Your task to perform on an android device: turn on the 12-hour format for clock Image 0: 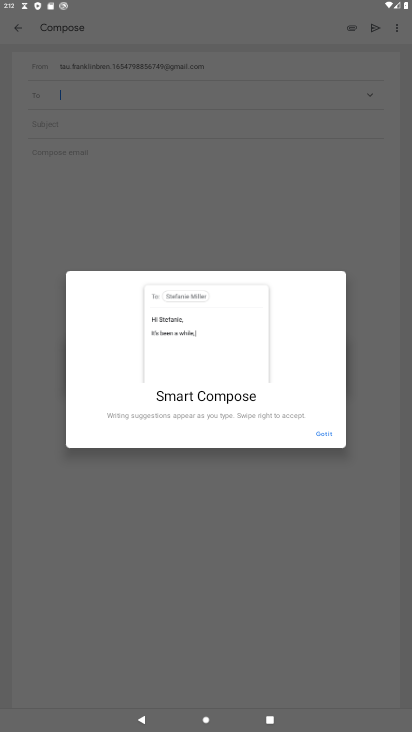
Step 0: press home button
Your task to perform on an android device: turn on the 12-hour format for clock Image 1: 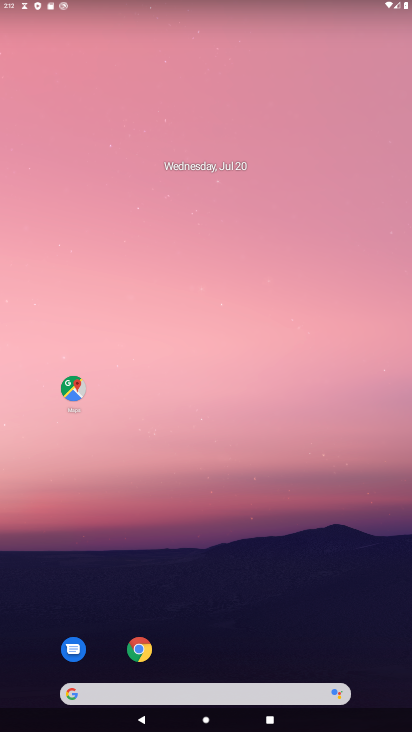
Step 1: drag from (227, 598) to (325, 63)
Your task to perform on an android device: turn on the 12-hour format for clock Image 2: 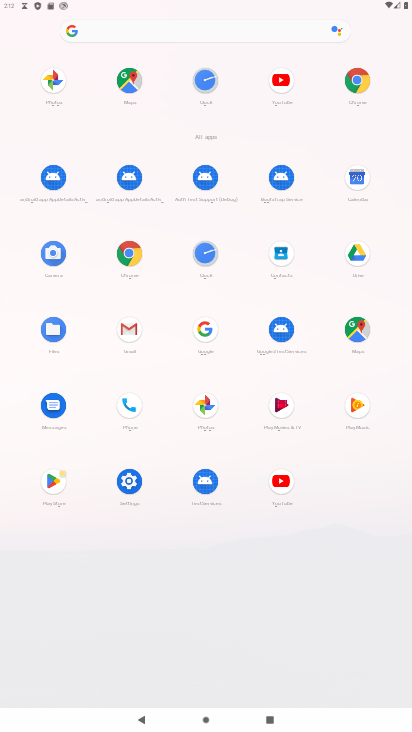
Step 2: click (138, 483)
Your task to perform on an android device: turn on the 12-hour format for clock Image 3: 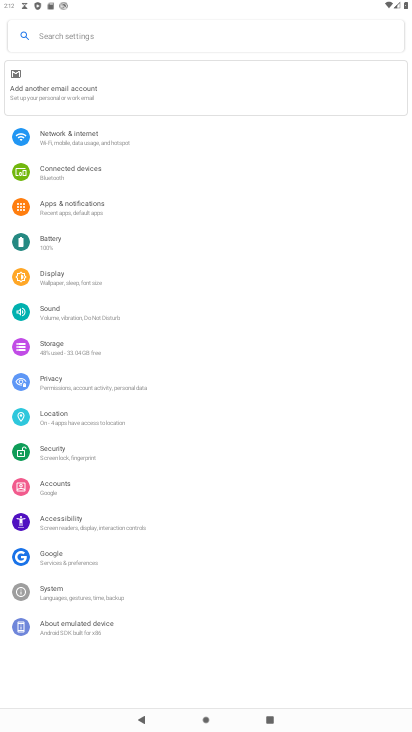
Step 3: click (76, 594)
Your task to perform on an android device: turn on the 12-hour format for clock Image 4: 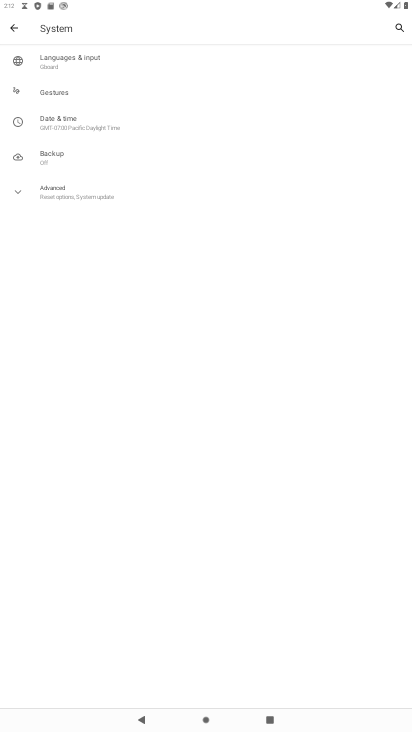
Step 4: click (93, 127)
Your task to perform on an android device: turn on the 12-hour format for clock Image 5: 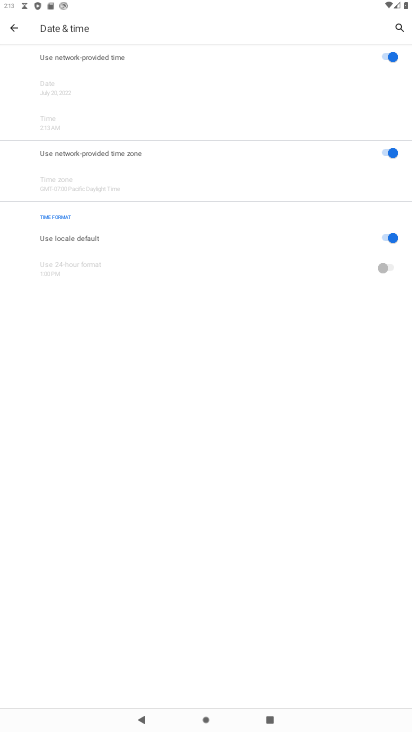
Step 5: task complete